Your task to perform on an android device: toggle priority inbox in the gmail app Image 0: 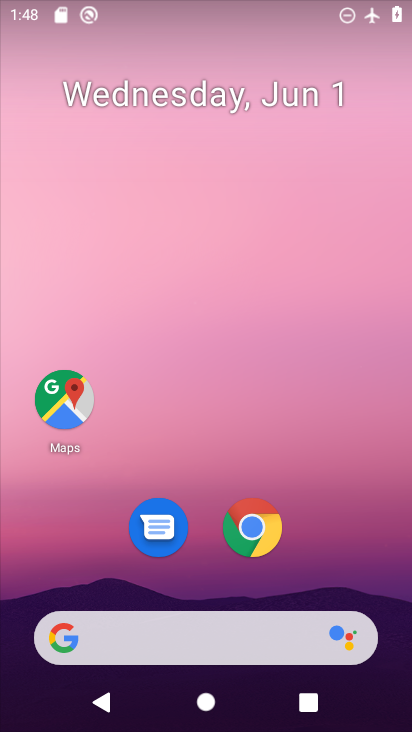
Step 0: drag from (242, 654) to (275, 9)
Your task to perform on an android device: toggle priority inbox in the gmail app Image 1: 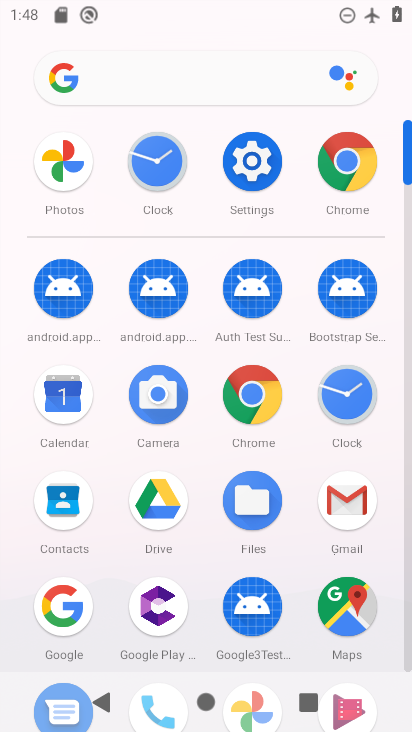
Step 1: click (266, 173)
Your task to perform on an android device: toggle priority inbox in the gmail app Image 2: 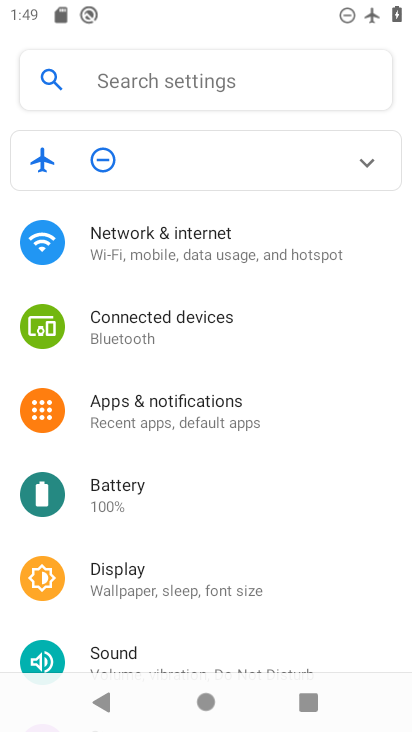
Step 2: press home button
Your task to perform on an android device: toggle priority inbox in the gmail app Image 3: 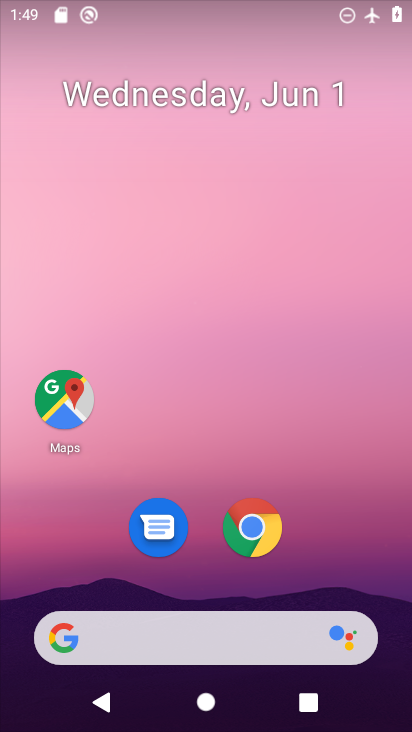
Step 3: drag from (251, 689) to (177, 165)
Your task to perform on an android device: toggle priority inbox in the gmail app Image 4: 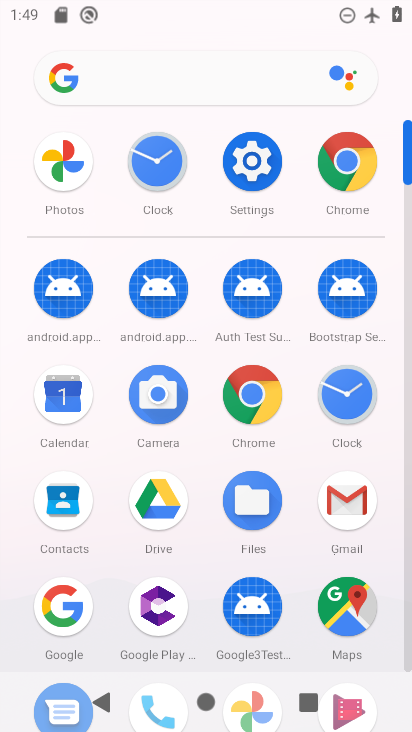
Step 4: click (352, 499)
Your task to perform on an android device: toggle priority inbox in the gmail app Image 5: 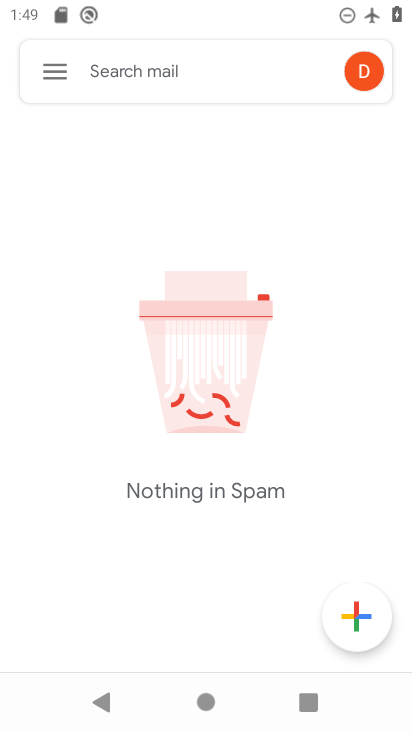
Step 5: click (47, 68)
Your task to perform on an android device: toggle priority inbox in the gmail app Image 6: 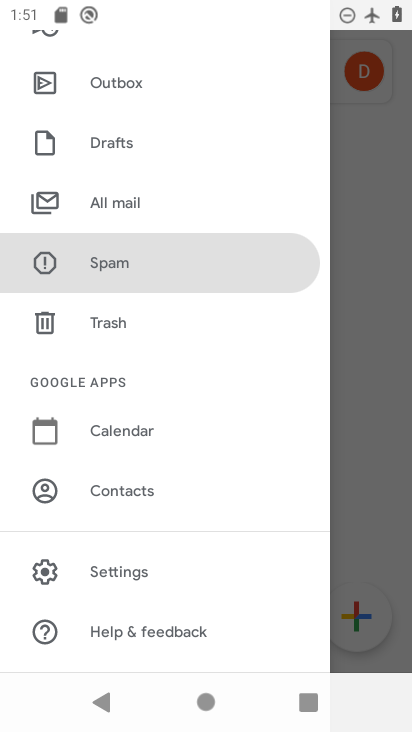
Step 6: click (188, 572)
Your task to perform on an android device: toggle priority inbox in the gmail app Image 7: 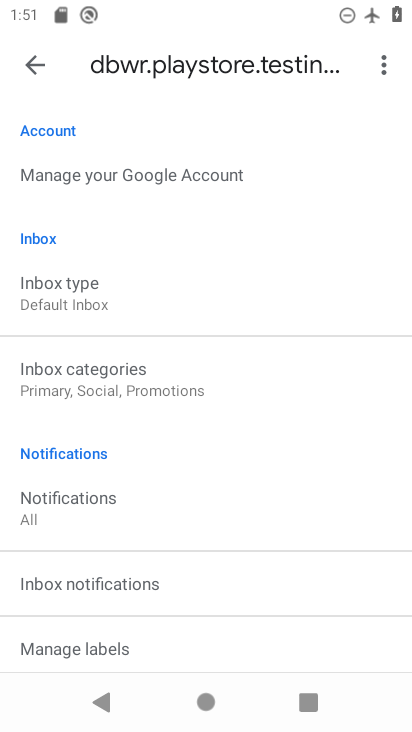
Step 7: click (104, 296)
Your task to perform on an android device: toggle priority inbox in the gmail app Image 8: 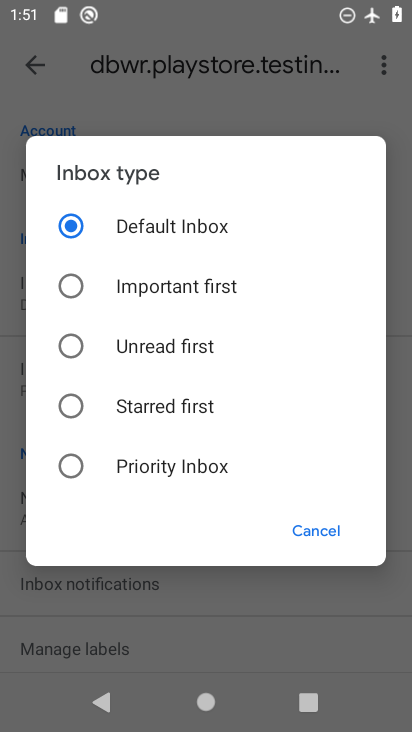
Step 8: click (151, 459)
Your task to perform on an android device: toggle priority inbox in the gmail app Image 9: 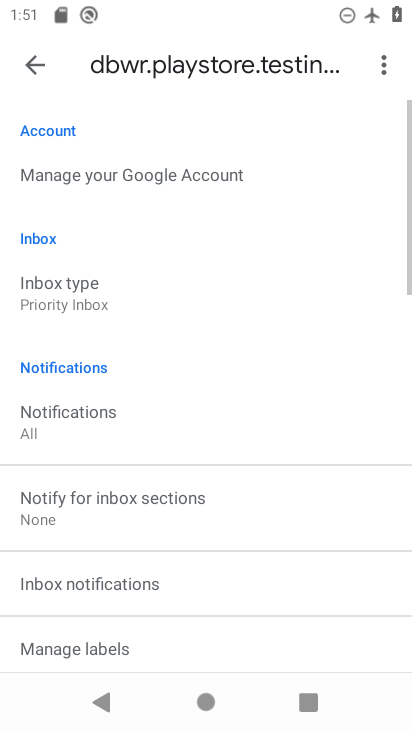
Step 9: task complete